Your task to perform on an android device: turn on showing notifications on the lock screen Image 0: 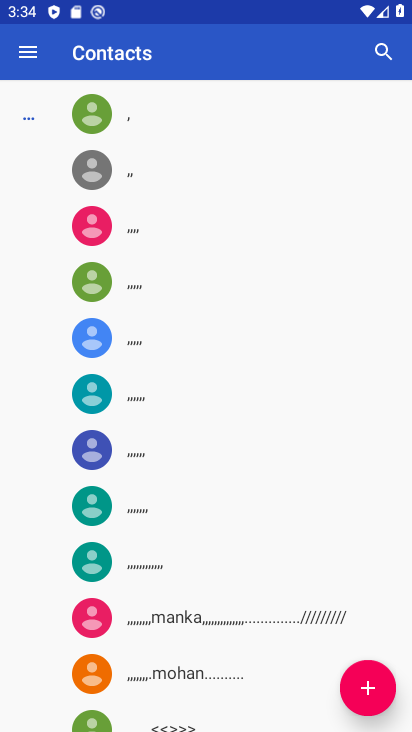
Step 0: press home button
Your task to perform on an android device: turn on showing notifications on the lock screen Image 1: 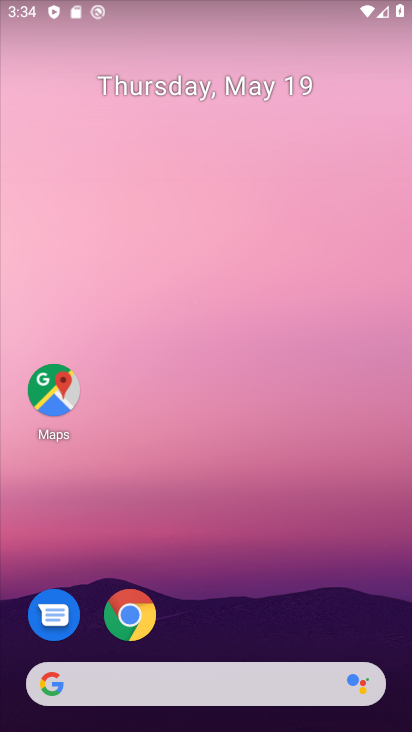
Step 1: drag from (298, 650) to (278, 0)
Your task to perform on an android device: turn on showing notifications on the lock screen Image 2: 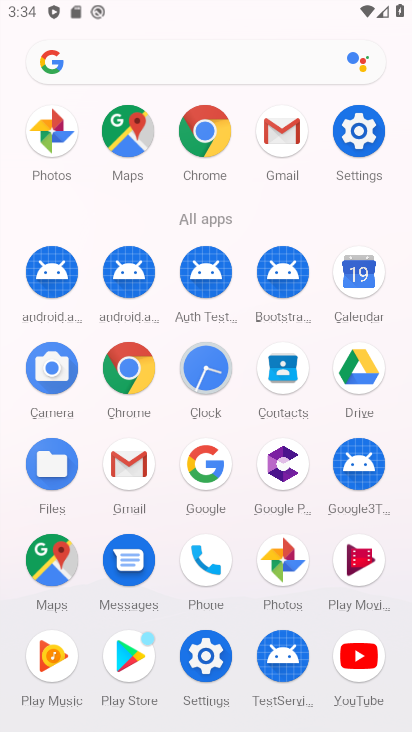
Step 2: click (372, 139)
Your task to perform on an android device: turn on showing notifications on the lock screen Image 3: 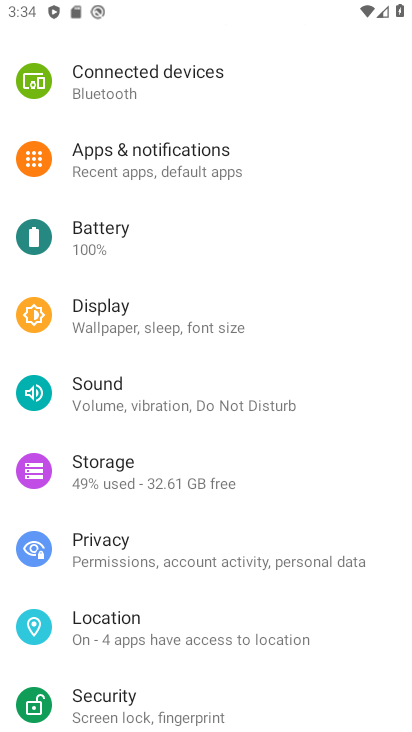
Step 3: click (111, 168)
Your task to perform on an android device: turn on showing notifications on the lock screen Image 4: 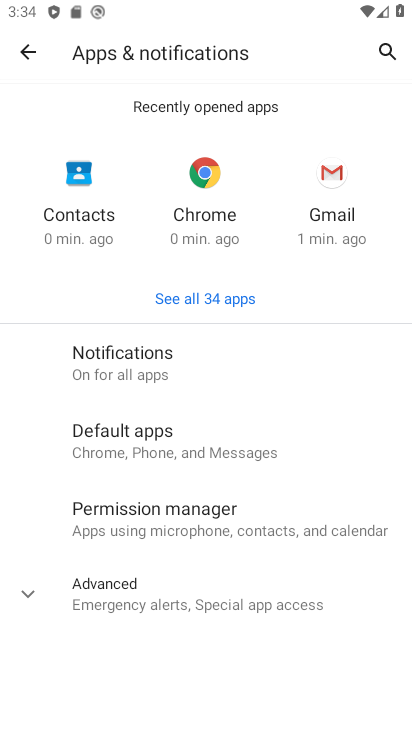
Step 4: click (138, 384)
Your task to perform on an android device: turn on showing notifications on the lock screen Image 5: 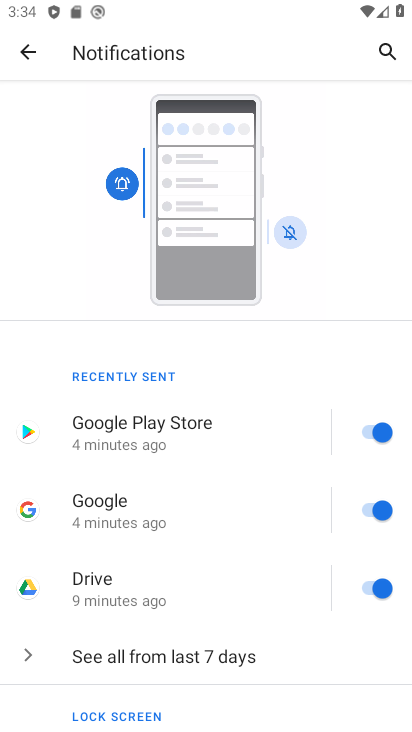
Step 5: drag from (211, 586) to (163, 208)
Your task to perform on an android device: turn on showing notifications on the lock screen Image 6: 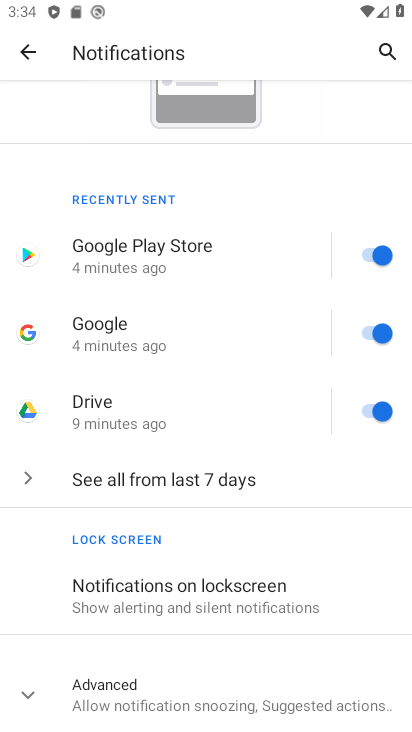
Step 6: click (142, 596)
Your task to perform on an android device: turn on showing notifications on the lock screen Image 7: 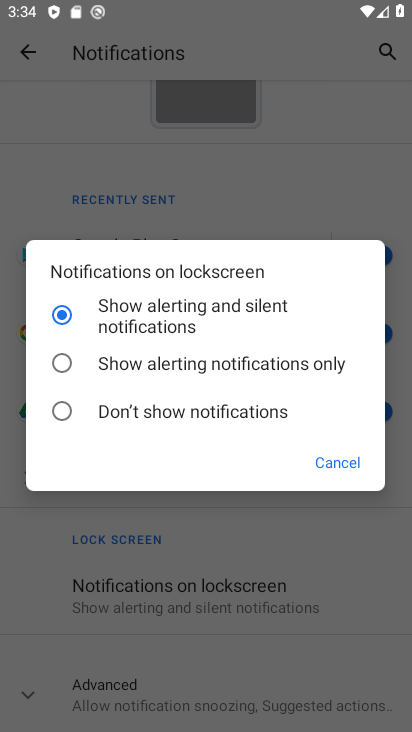
Step 7: task complete